Your task to perform on an android device: Open the calendar and show me this week's events Image 0: 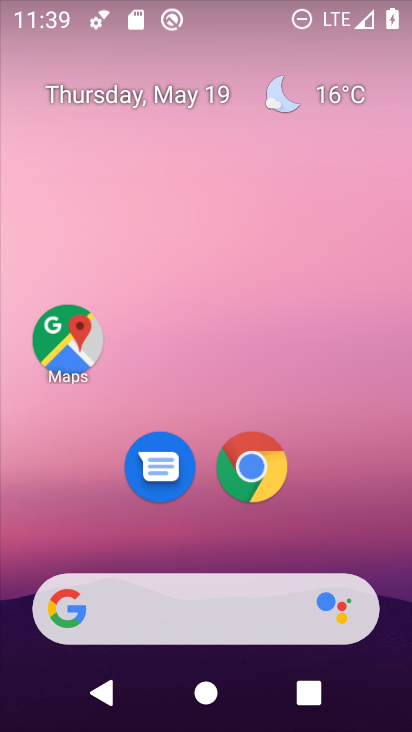
Step 0: drag from (344, 557) to (315, 242)
Your task to perform on an android device: Open the calendar and show me this week's events Image 1: 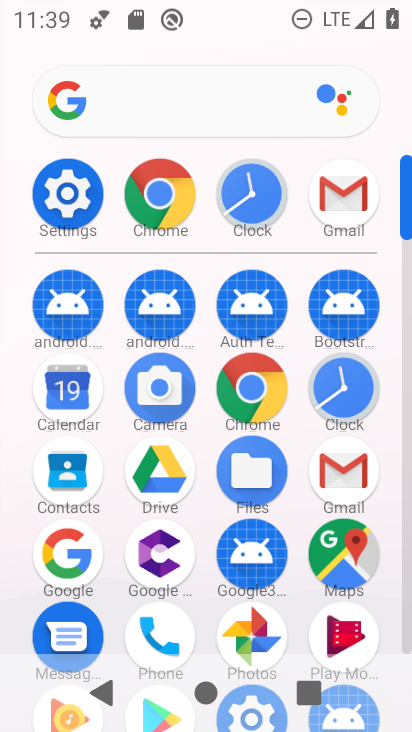
Step 1: click (63, 388)
Your task to perform on an android device: Open the calendar and show me this week's events Image 2: 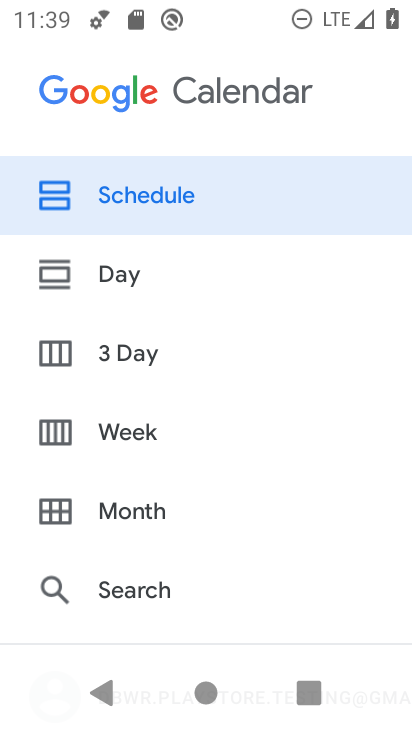
Step 2: click (142, 439)
Your task to perform on an android device: Open the calendar and show me this week's events Image 3: 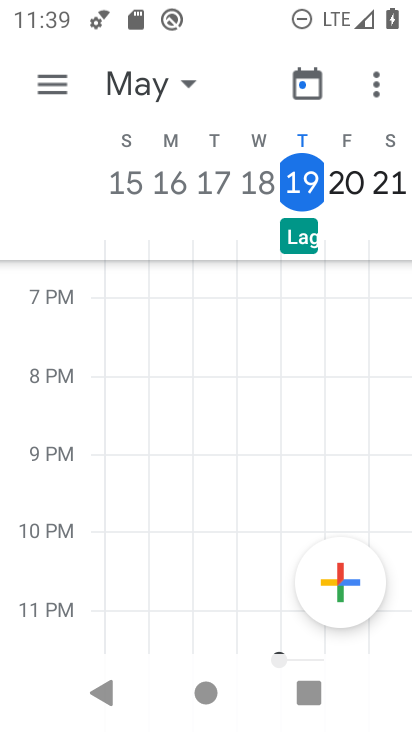
Step 3: task complete